Your task to perform on an android device: Go to battery settings Image 0: 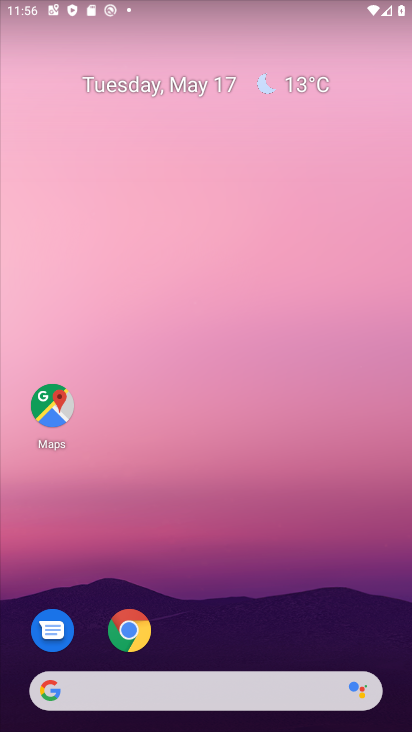
Step 0: drag from (219, 699) to (204, 585)
Your task to perform on an android device: Go to battery settings Image 1: 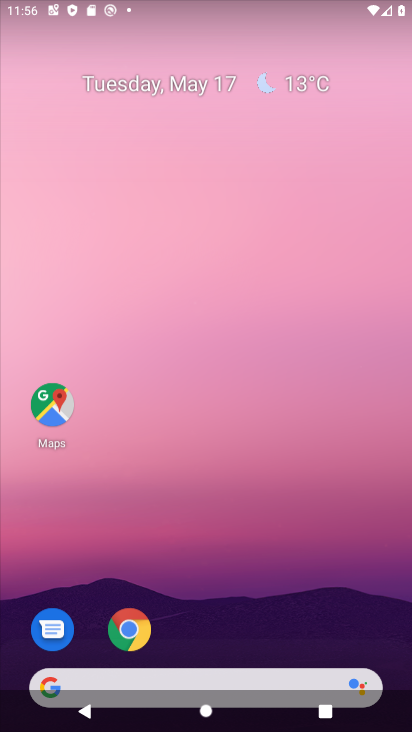
Step 1: click (197, 79)
Your task to perform on an android device: Go to battery settings Image 2: 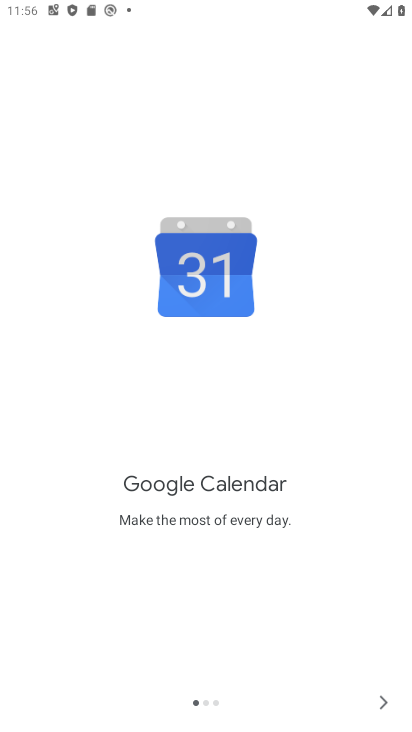
Step 2: press home button
Your task to perform on an android device: Go to battery settings Image 3: 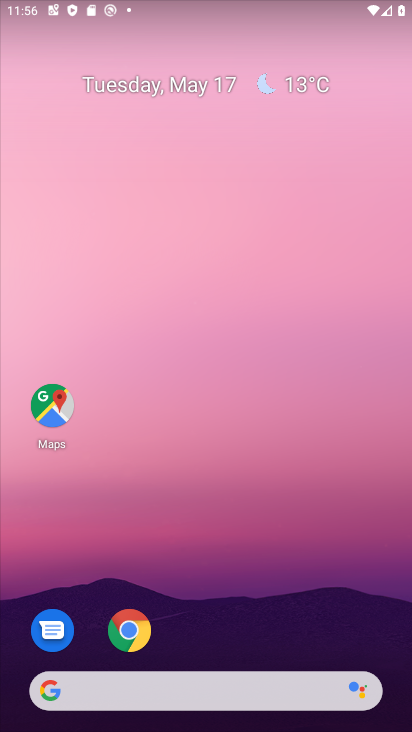
Step 3: drag from (233, 711) to (163, 1)
Your task to perform on an android device: Go to battery settings Image 4: 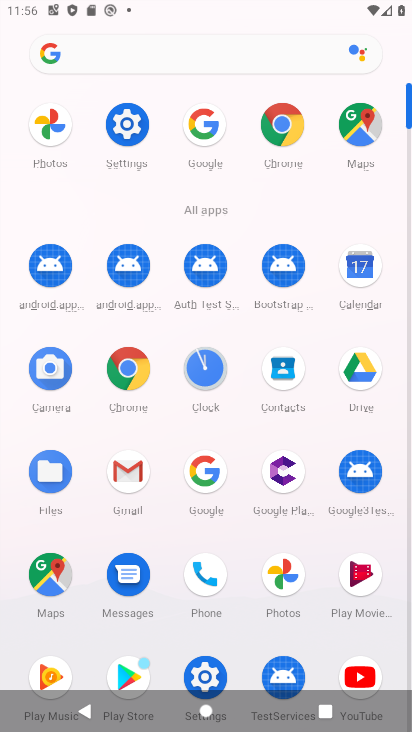
Step 4: click (126, 129)
Your task to perform on an android device: Go to battery settings Image 5: 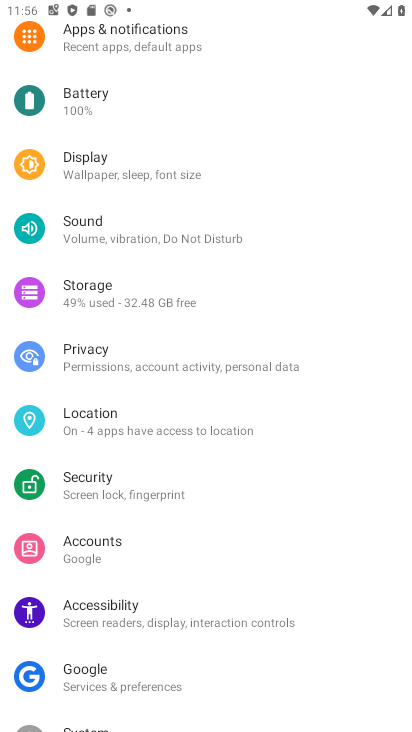
Step 5: click (93, 95)
Your task to perform on an android device: Go to battery settings Image 6: 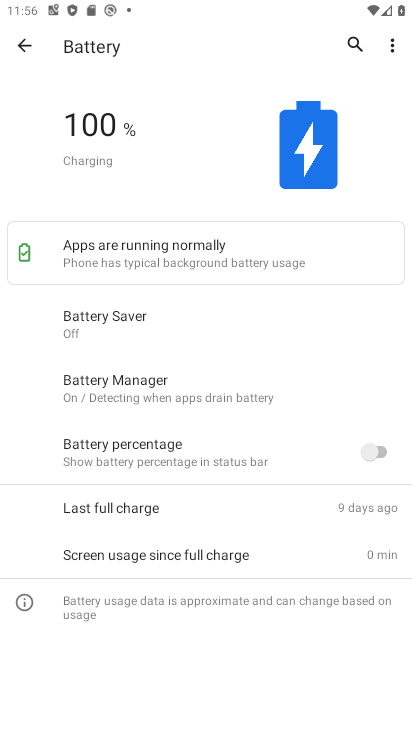
Step 6: task complete